Your task to perform on an android device: Open Google Chrome and open the bookmarks view Image 0: 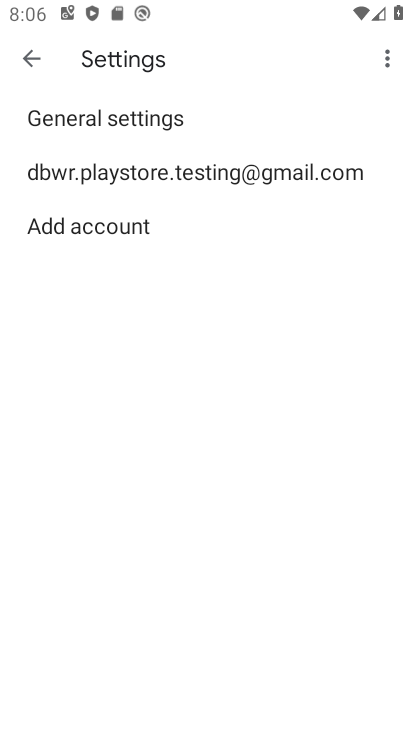
Step 0: press home button
Your task to perform on an android device: Open Google Chrome and open the bookmarks view Image 1: 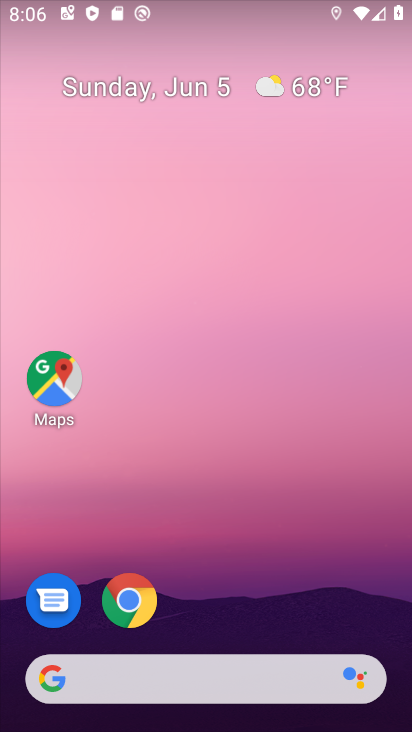
Step 1: click (130, 600)
Your task to perform on an android device: Open Google Chrome and open the bookmarks view Image 2: 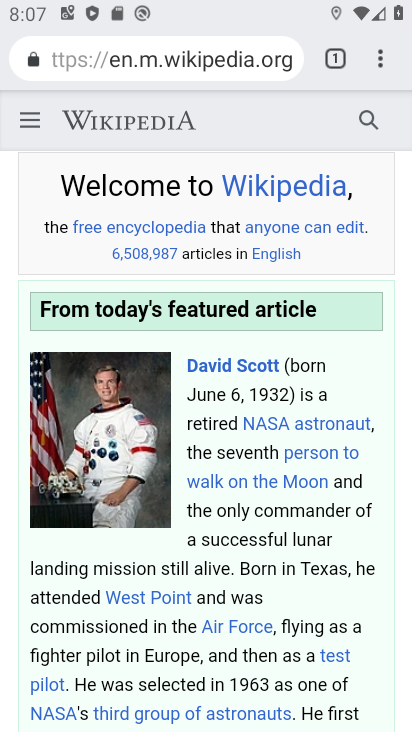
Step 2: click (376, 60)
Your task to perform on an android device: Open Google Chrome and open the bookmarks view Image 3: 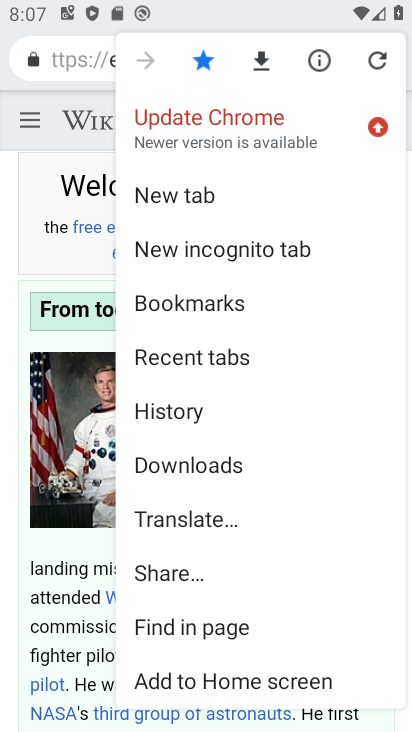
Step 3: click (218, 303)
Your task to perform on an android device: Open Google Chrome and open the bookmarks view Image 4: 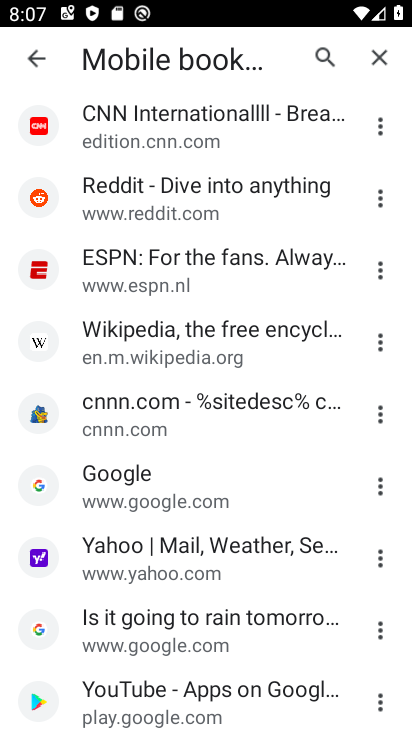
Step 4: task complete